Your task to perform on an android device: What's on my calendar tomorrow? Image 0: 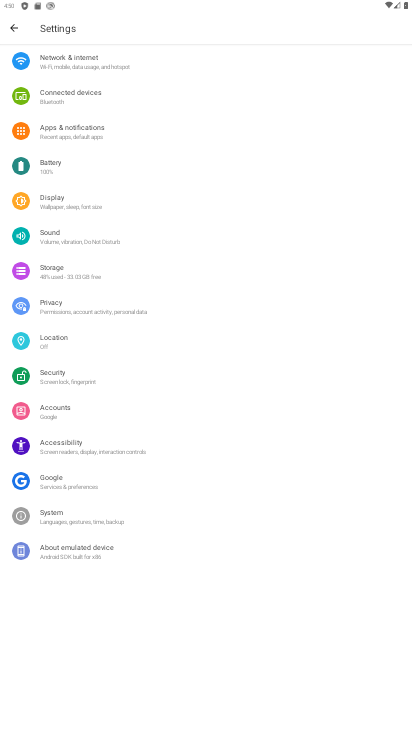
Step 0: press home button
Your task to perform on an android device: What's on my calendar tomorrow? Image 1: 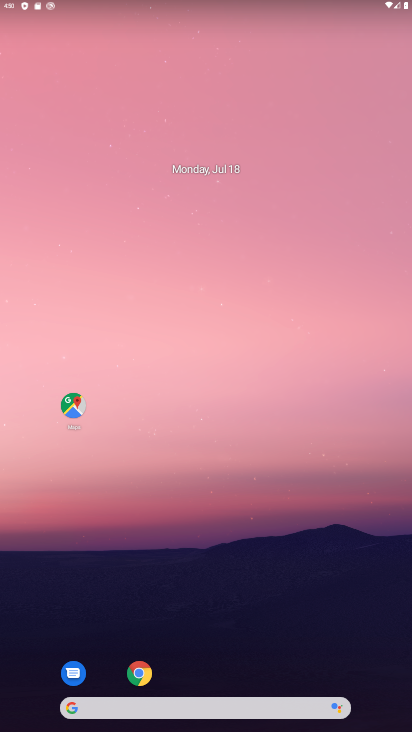
Step 1: drag from (177, 588) to (5, 97)
Your task to perform on an android device: What's on my calendar tomorrow? Image 2: 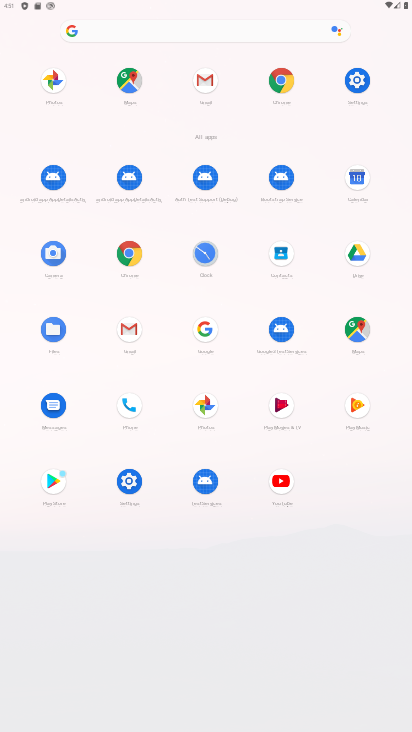
Step 2: click (356, 172)
Your task to perform on an android device: What's on my calendar tomorrow? Image 3: 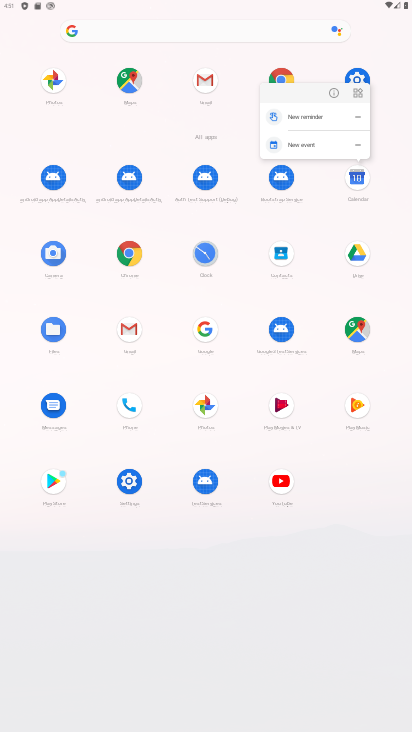
Step 3: click (356, 172)
Your task to perform on an android device: What's on my calendar tomorrow? Image 4: 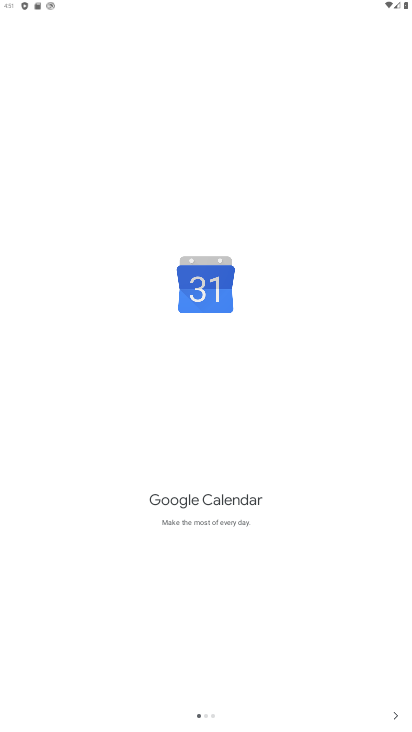
Step 4: click (400, 711)
Your task to perform on an android device: What's on my calendar tomorrow? Image 5: 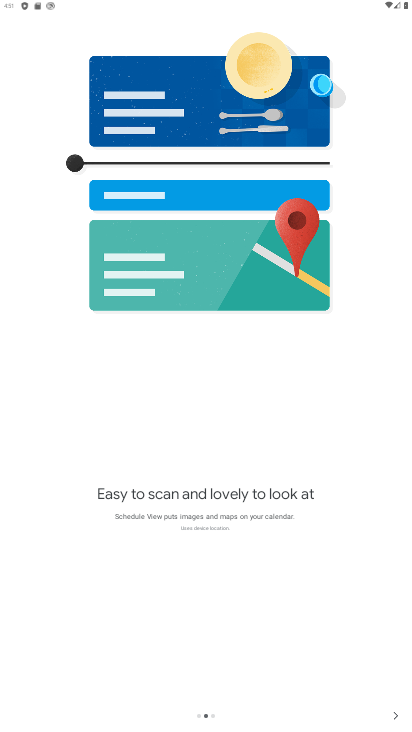
Step 5: click (399, 720)
Your task to perform on an android device: What's on my calendar tomorrow? Image 6: 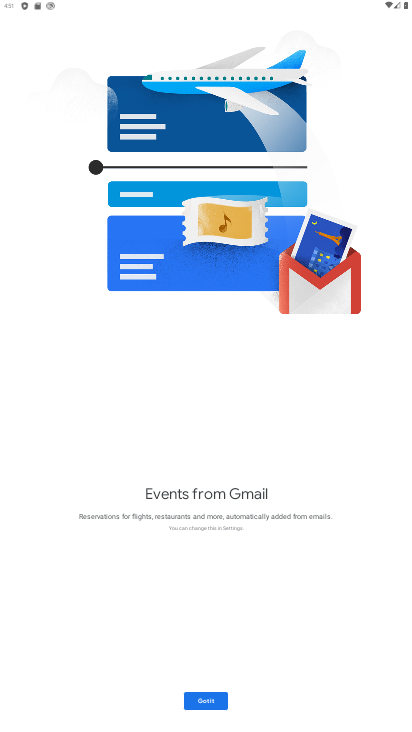
Step 6: click (204, 686)
Your task to perform on an android device: What's on my calendar tomorrow? Image 7: 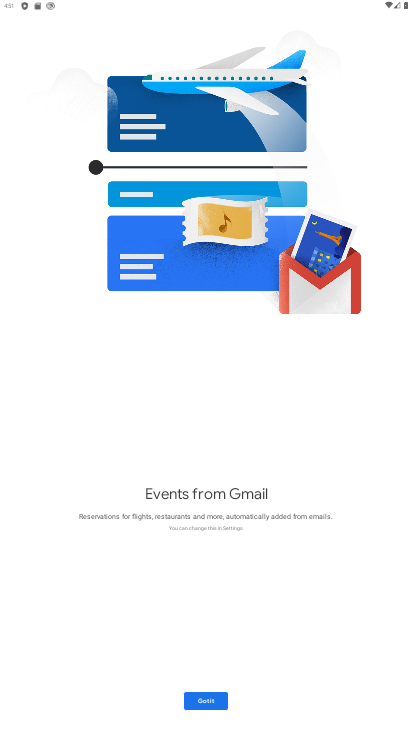
Step 7: click (210, 699)
Your task to perform on an android device: What's on my calendar tomorrow? Image 8: 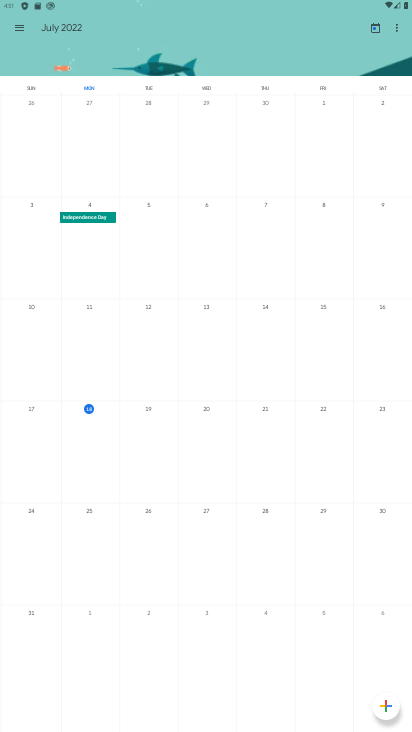
Step 8: click (147, 410)
Your task to perform on an android device: What's on my calendar tomorrow? Image 9: 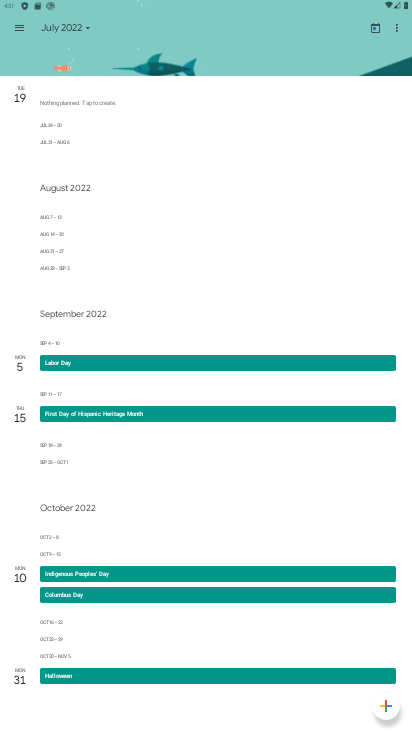
Step 9: task complete